Your task to perform on an android device: star an email in the gmail app Image 0: 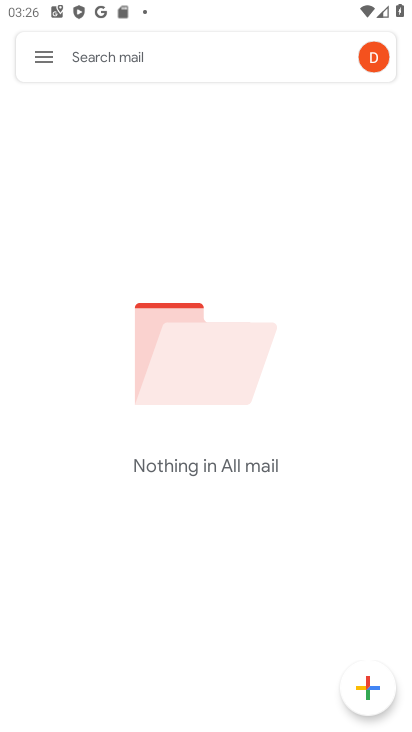
Step 0: press home button
Your task to perform on an android device: star an email in the gmail app Image 1: 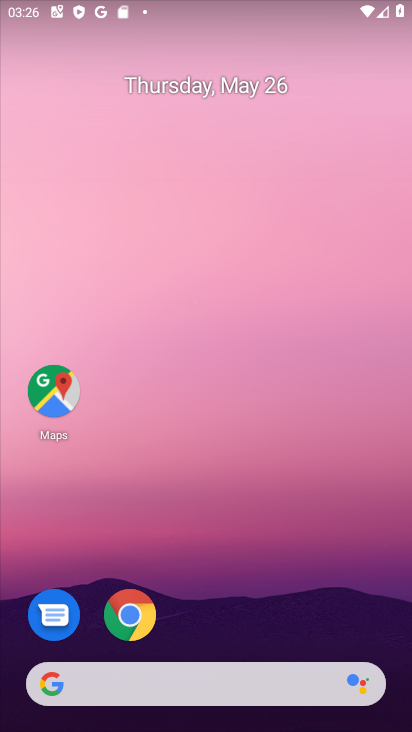
Step 1: drag from (241, 616) to (226, 45)
Your task to perform on an android device: star an email in the gmail app Image 2: 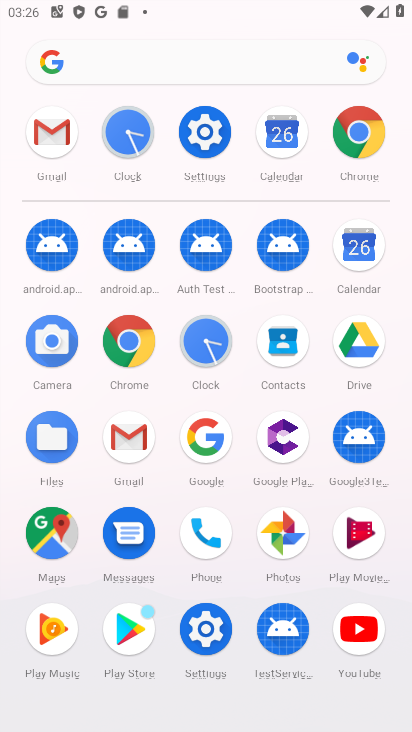
Step 2: click (49, 149)
Your task to perform on an android device: star an email in the gmail app Image 3: 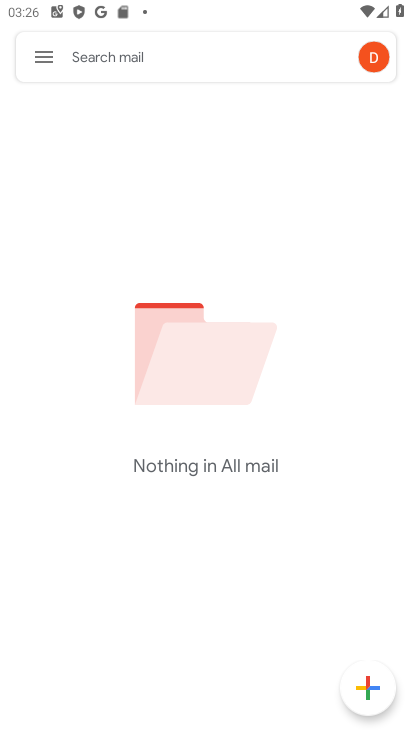
Step 3: click (49, 61)
Your task to perform on an android device: star an email in the gmail app Image 4: 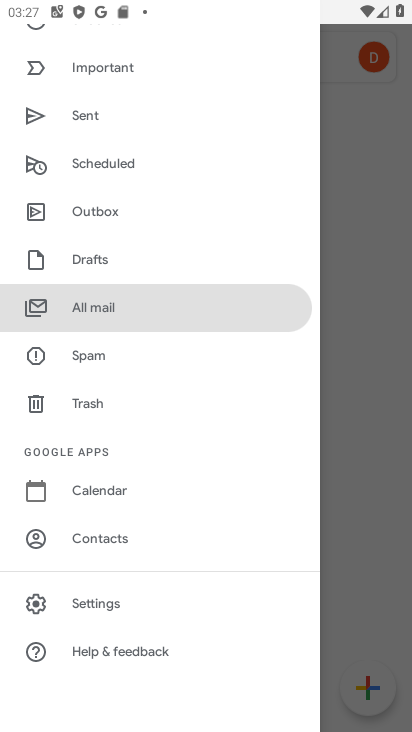
Step 4: click (109, 320)
Your task to perform on an android device: star an email in the gmail app Image 5: 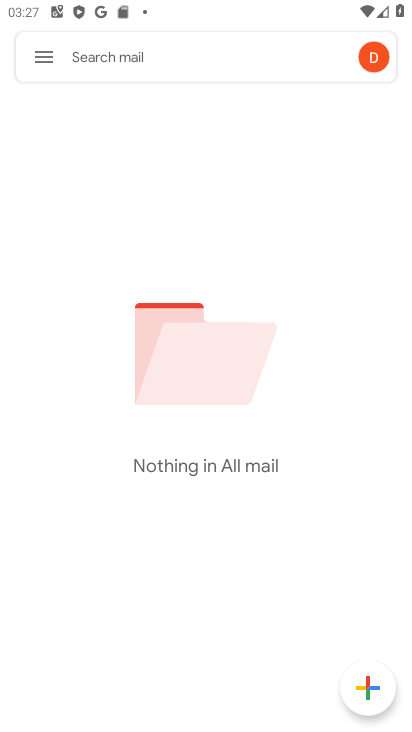
Step 5: task complete